Your task to perform on an android device: turn on translation in the chrome app Image 0: 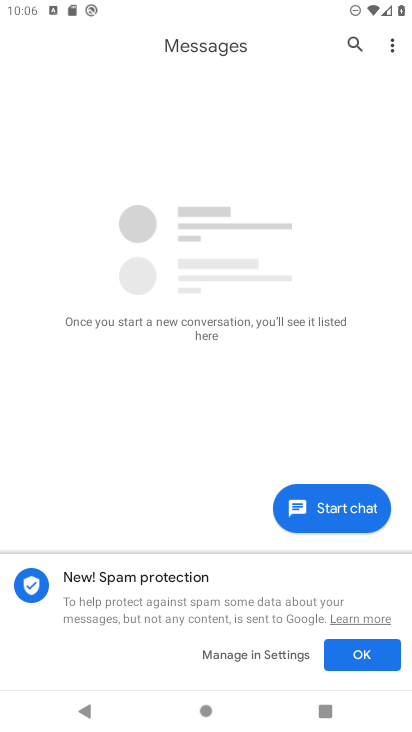
Step 0: press home button
Your task to perform on an android device: turn on translation in the chrome app Image 1: 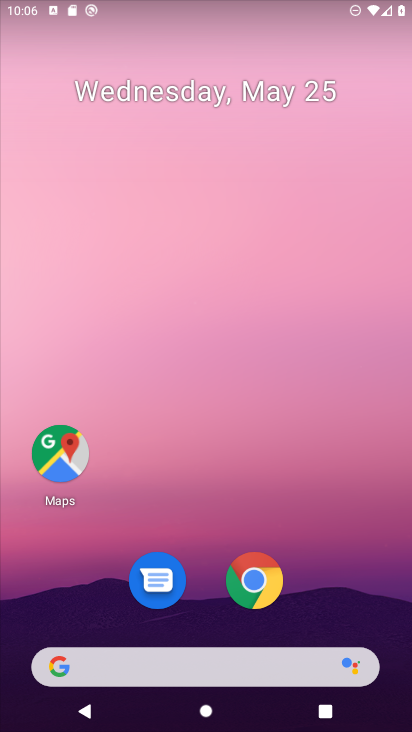
Step 1: drag from (24, 590) to (180, 265)
Your task to perform on an android device: turn on translation in the chrome app Image 2: 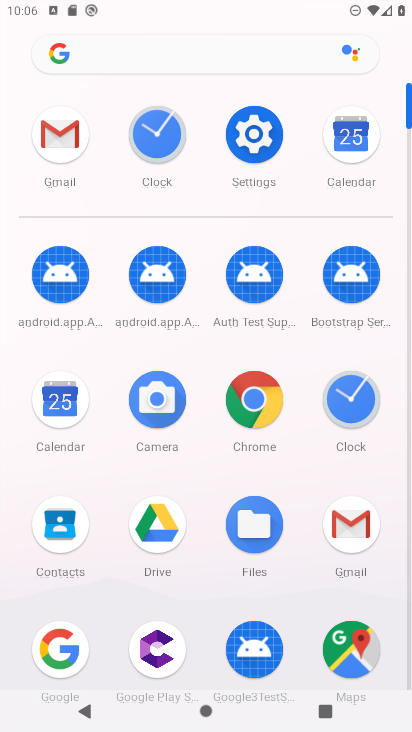
Step 2: click (258, 394)
Your task to perform on an android device: turn on translation in the chrome app Image 3: 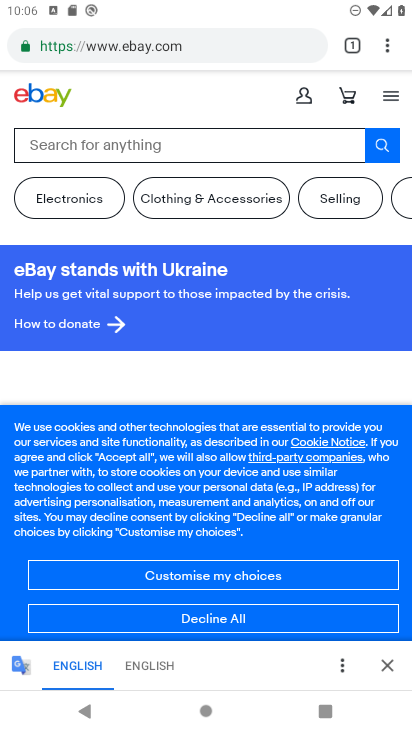
Step 3: click (384, 43)
Your task to perform on an android device: turn on translation in the chrome app Image 4: 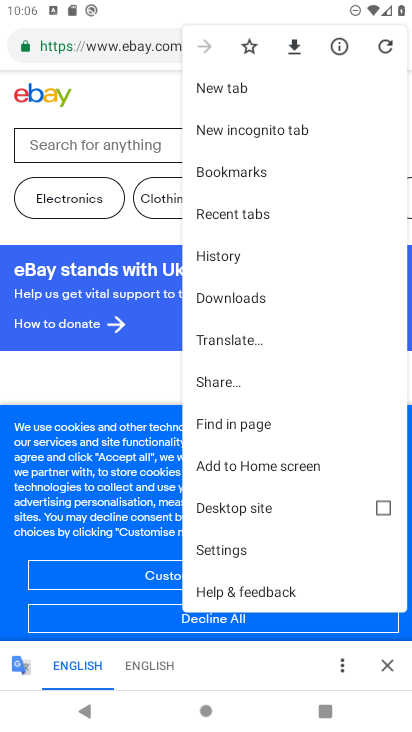
Step 4: click (231, 555)
Your task to perform on an android device: turn on translation in the chrome app Image 5: 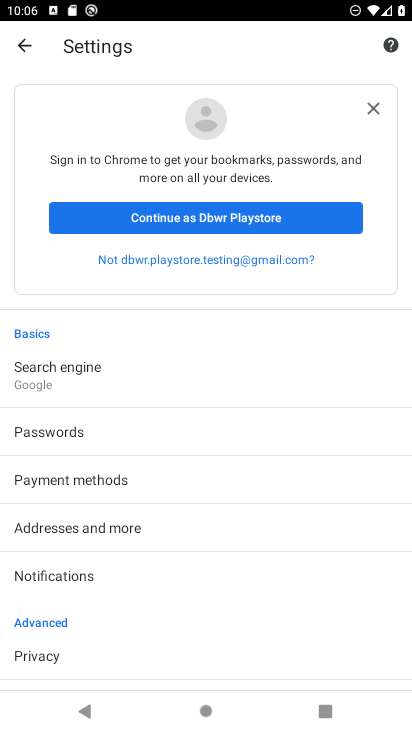
Step 5: drag from (19, 476) to (209, 135)
Your task to perform on an android device: turn on translation in the chrome app Image 6: 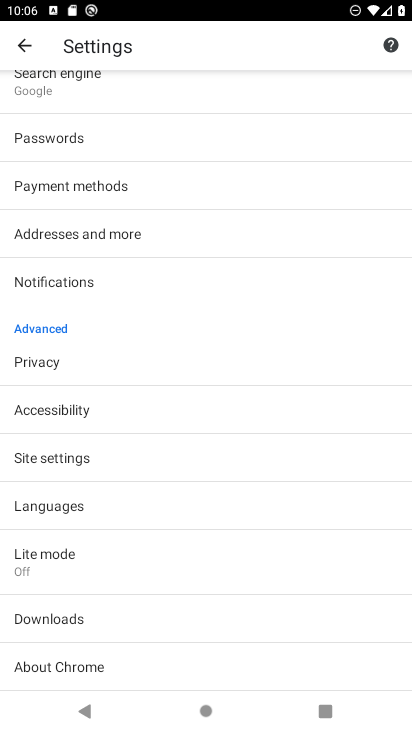
Step 6: click (65, 504)
Your task to perform on an android device: turn on translation in the chrome app Image 7: 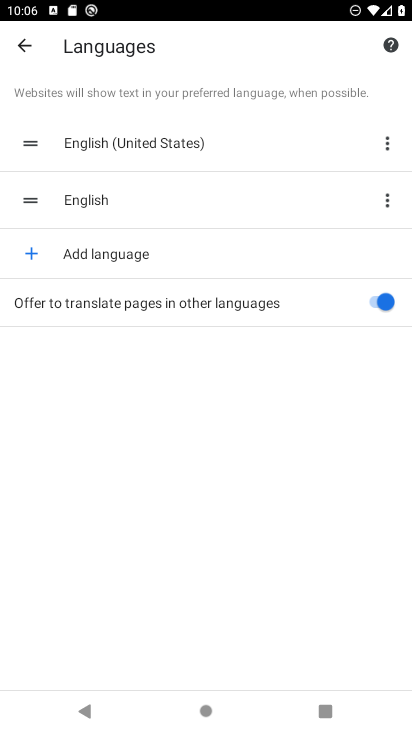
Step 7: task complete